Your task to perform on an android device: What's the weather like in Seoul? Image 0: 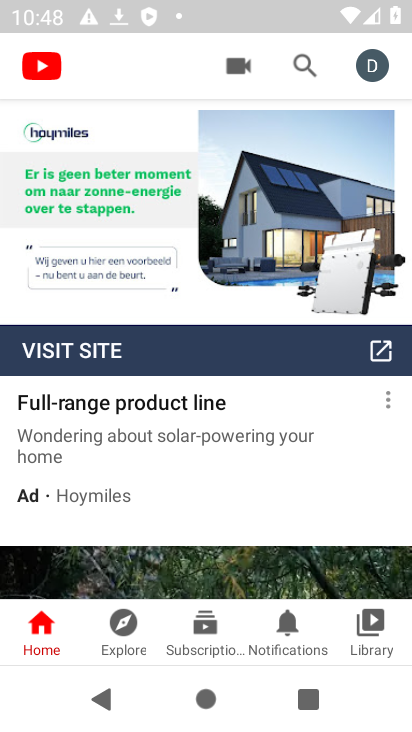
Step 0: press home button
Your task to perform on an android device: What's the weather like in Seoul? Image 1: 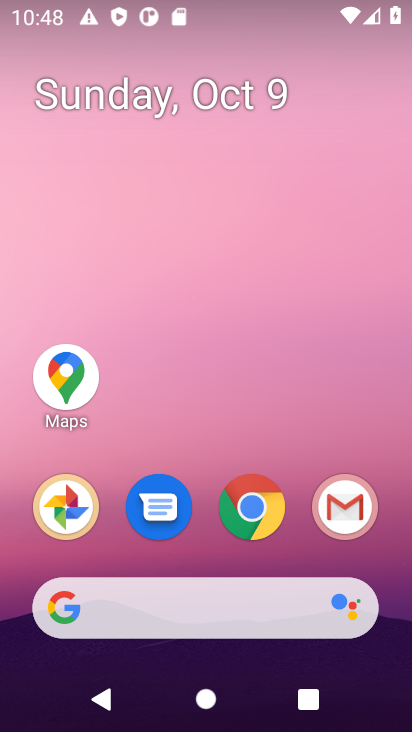
Step 1: click (263, 613)
Your task to perform on an android device: What's the weather like in Seoul? Image 2: 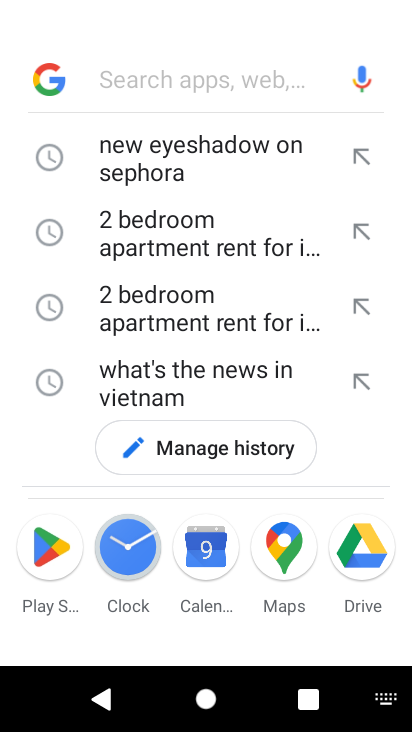
Step 2: type "What's the weather like in Seoul"
Your task to perform on an android device: What's the weather like in Seoul? Image 3: 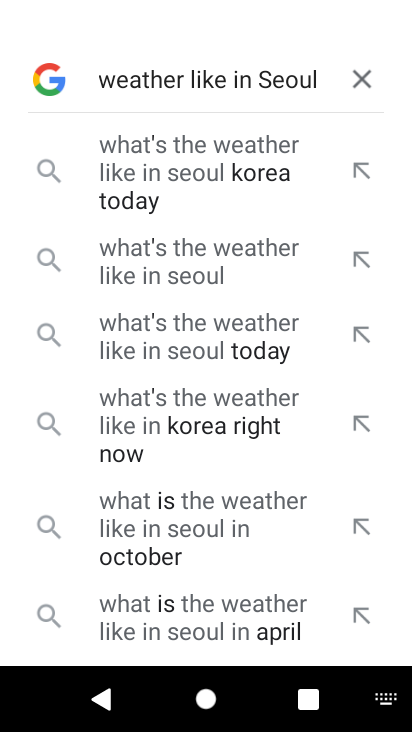
Step 3: press enter
Your task to perform on an android device: What's the weather like in Seoul? Image 4: 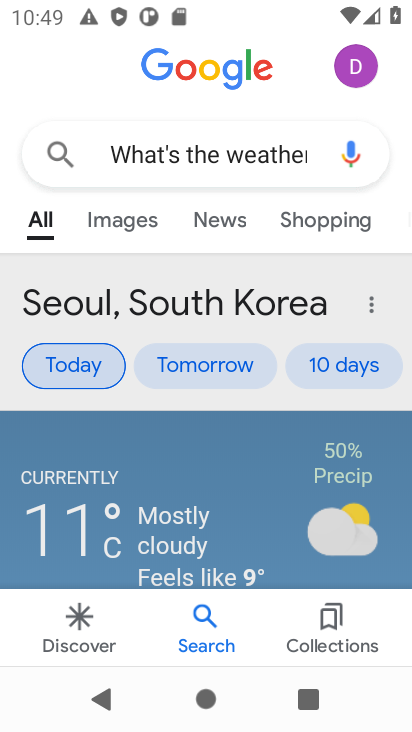
Step 4: task complete